Your task to perform on an android device: turn off priority inbox in the gmail app Image 0: 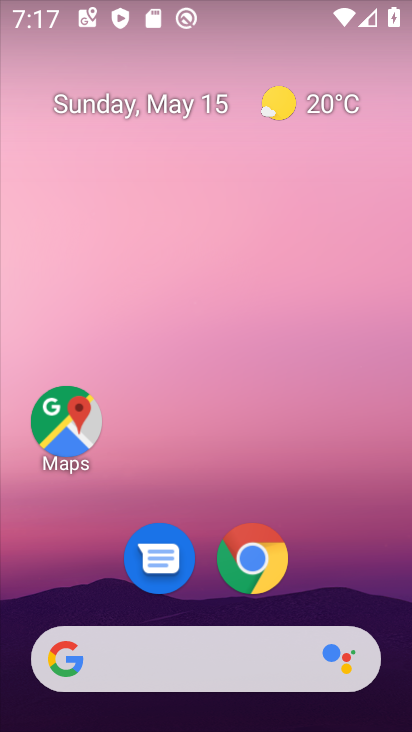
Step 0: drag from (231, 447) to (173, 74)
Your task to perform on an android device: turn off priority inbox in the gmail app Image 1: 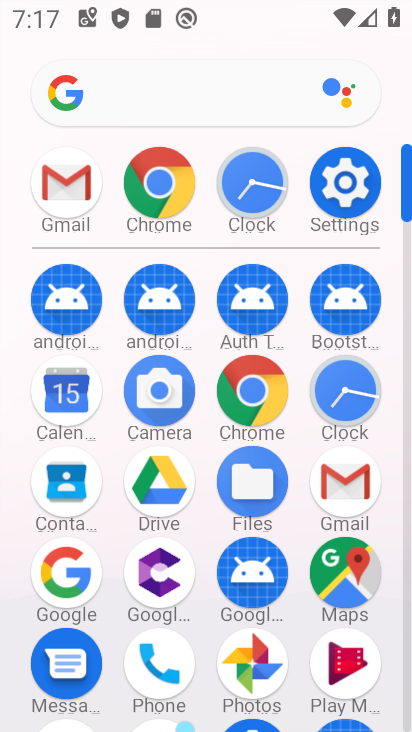
Step 1: click (52, 185)
Your task to perform on an android device: turn off priority inbox in the gmail app Image 2: 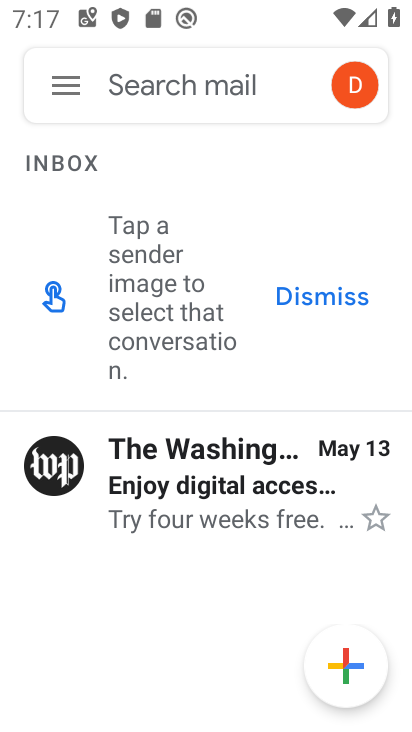
Step 2: click (63, 82)
Your task to perform on an android device: turn off priority inbox in the gmail app Image 3: 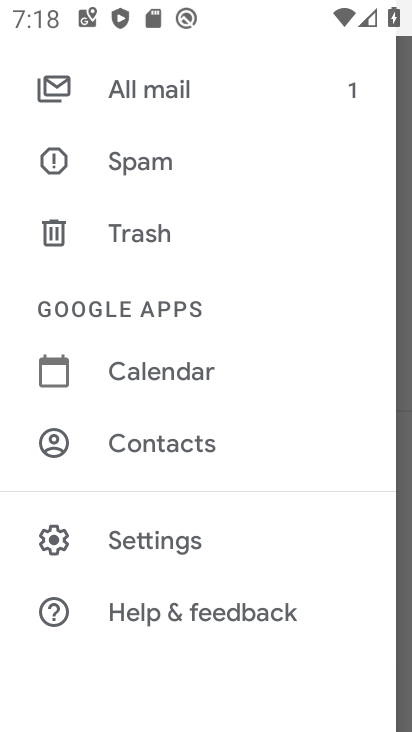
Step 3: click (165, 538)
Your task to perform on an android device: turn off priority inbox in the gmail app Image 4: 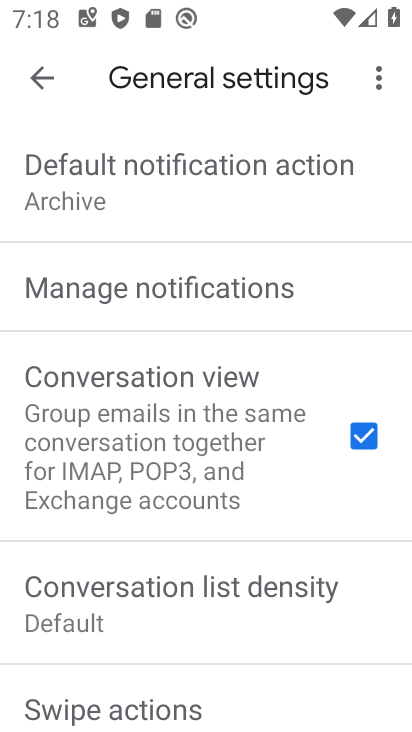
Step 4: click (39, 73)
Your task to perform on an android device: turn off priority inbox in the gmail app Image 5: 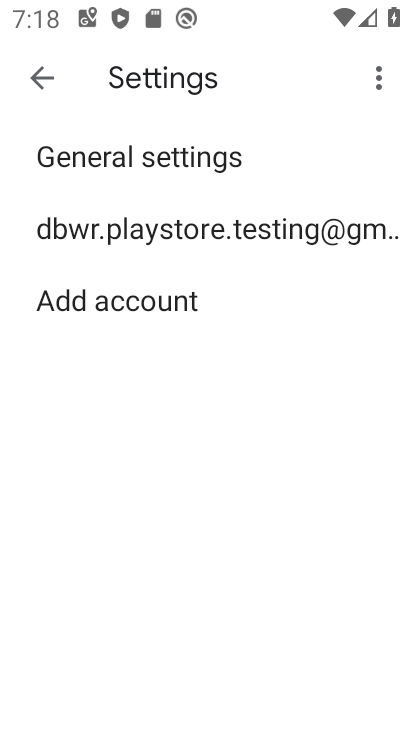
Step 5: click (151, 226)
Your task to perform on an android device: turn off priority inbox in the gmail app Image 6: 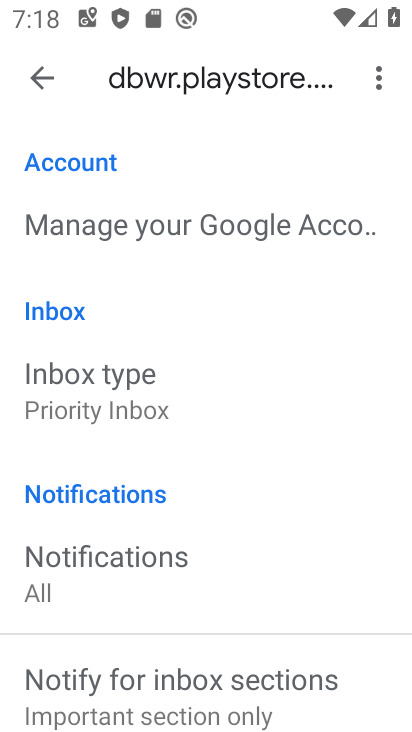
Step 6: click (105, 392)
Your task to perform on an android device: turn off priority inbox in the gmail app Image 7: 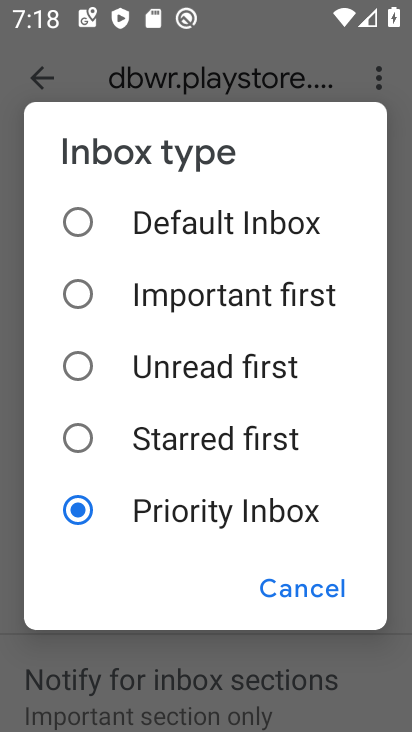
Step 7: click (78, 236)
Your task to perform on an android device: turn off priority inbox in the gmail app Image 8: 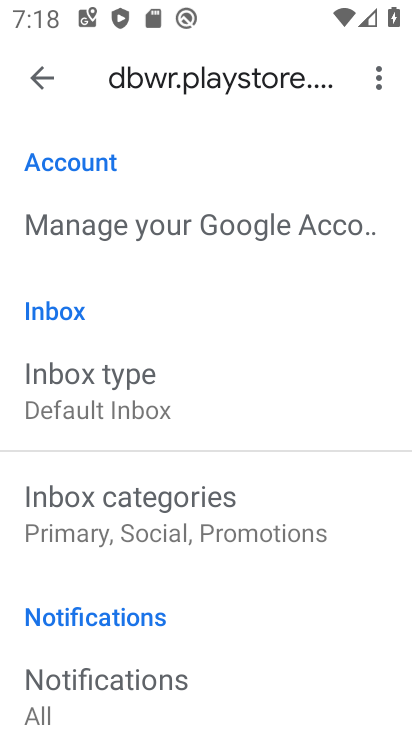
Step 8: task complete